Your task to perform on an android device: Toggle the flashlight Image 0: 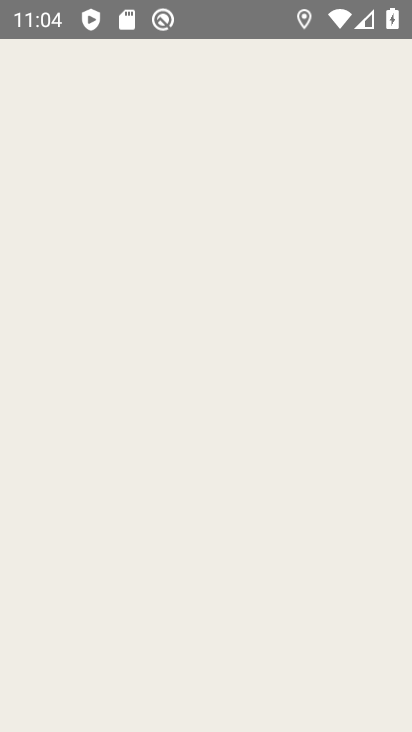
Step 0: press home button
Your task to perform on an android device: Toggle the flashlight Image 1: 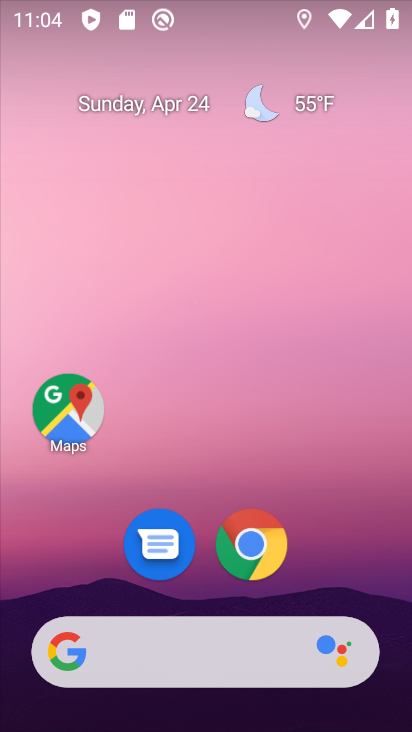
Step 1: drag from (205, 495) to (170, 103)
Your task to perform on an android device: Toggle the flashlight Image 2: 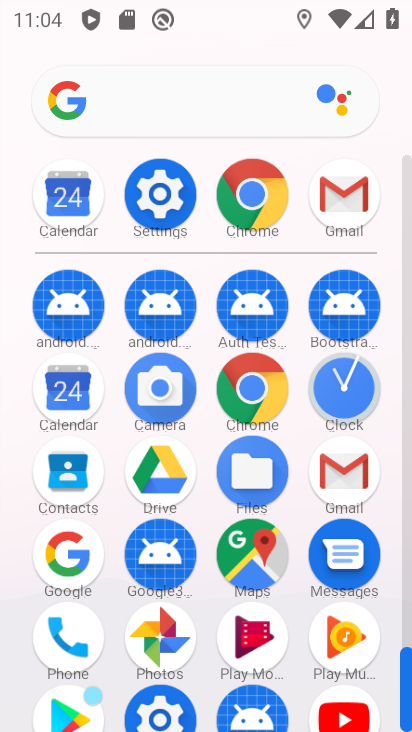
Step 2: click (171, 208)
Your task to perform on an android device: Toggle the flashlight Image 3: 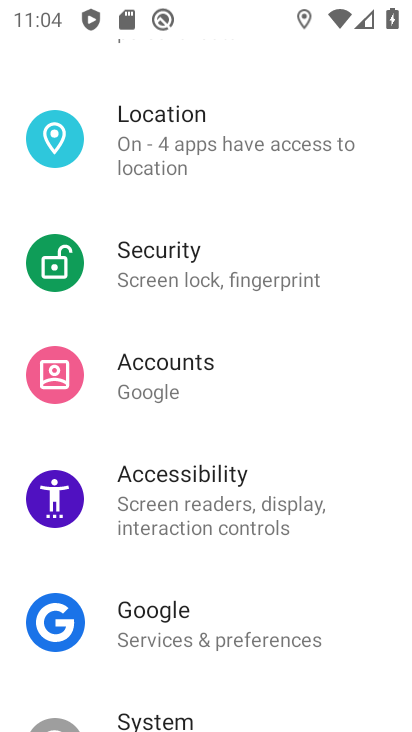
Step 3: drag from (234, 110) to (212, 436)
Your task to perform on an android device: Toggle the flashlight Image 4: 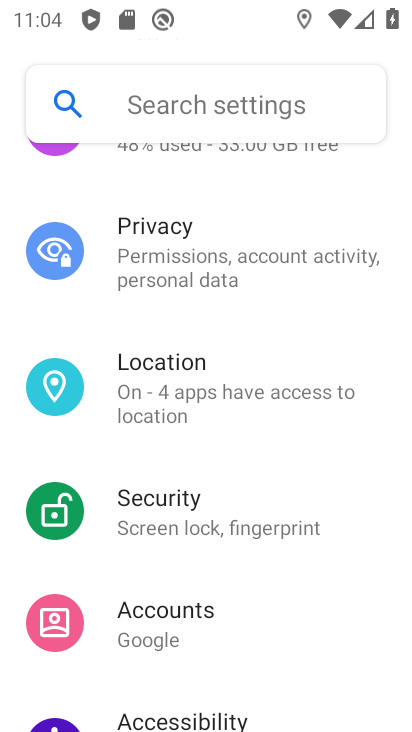
Step 4: click (217, 109)
Your task to perform on an android device: Toggle the flashlight Image 5: 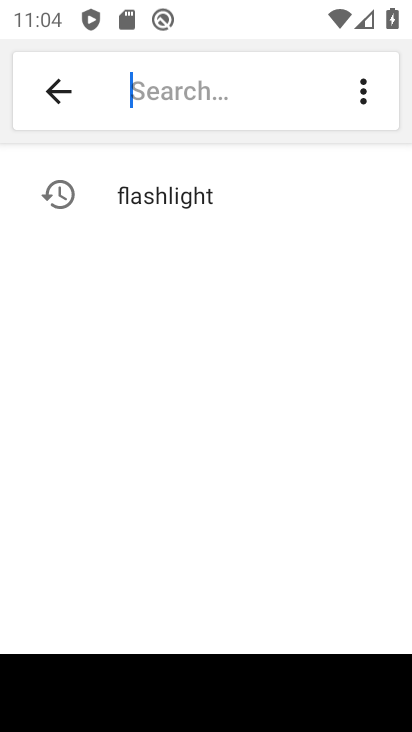
Step 5: click (170, 203)
Your task to perform on an android device: Toggle the flashlight Image 6: 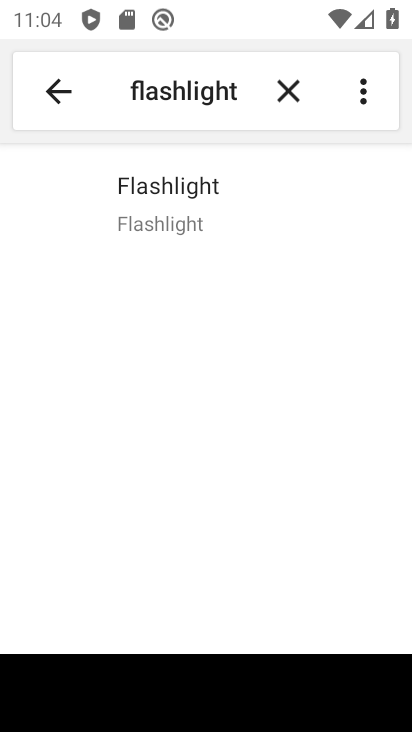
Step 6: click (170, 203)
Your task to perform on an android device: Toggle the flashlight Image 7: 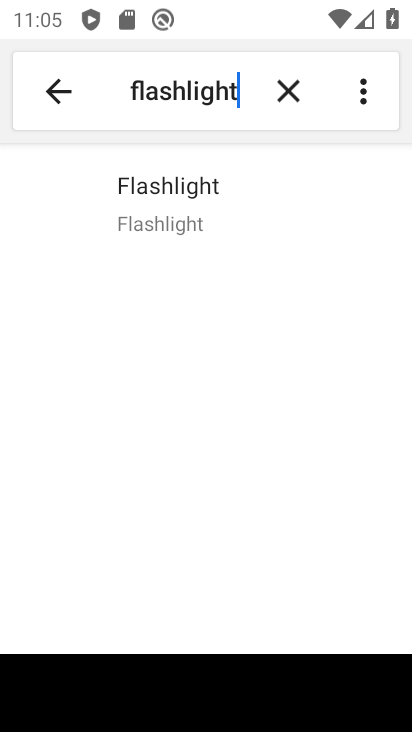
Step 7: task complete